Your task to perform on an android device: change the clock display to analog Image 0: 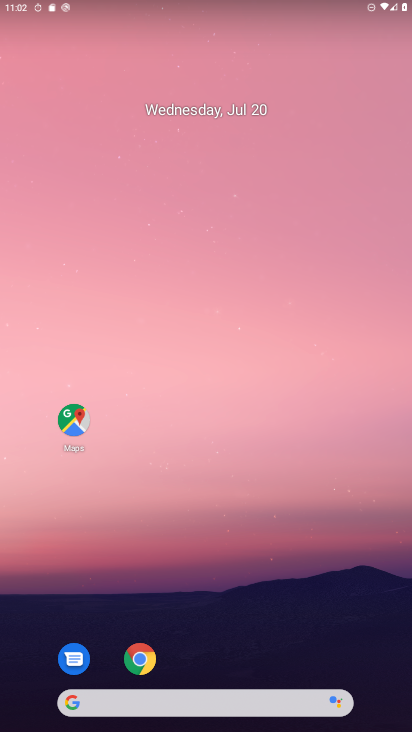
Step 0: drag from (231, 580) to (274, 113)
Your task to perform on an android device: change the clock display to analog Image 1: 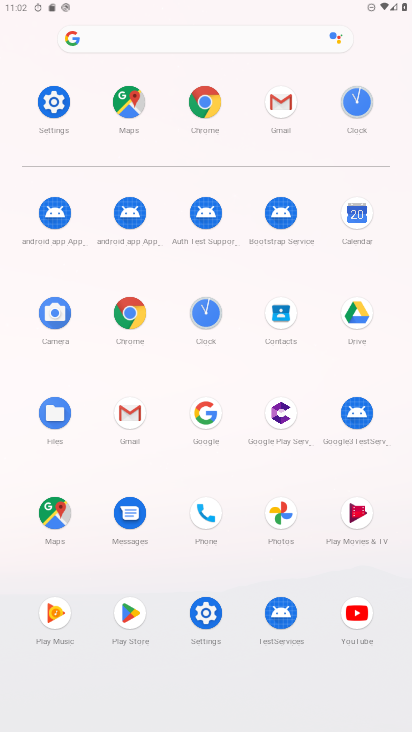
Step 1: click (210, 301)
Your task to perform on an android device: change the clock display to analog Image 2: 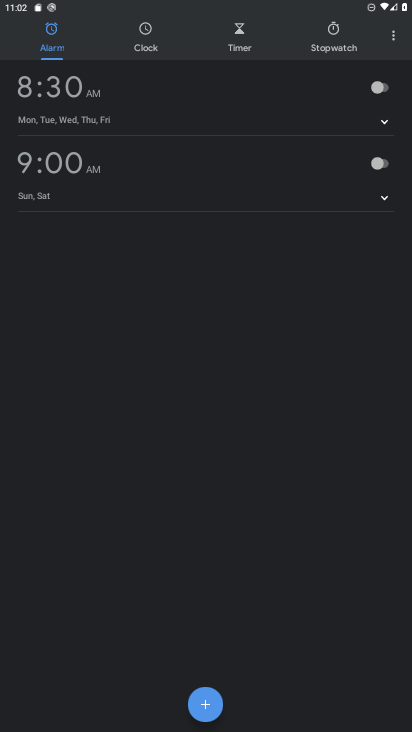
Step 2: click (389, 36)
Your task to perform on an android device: change the clock display to analog Image 3: 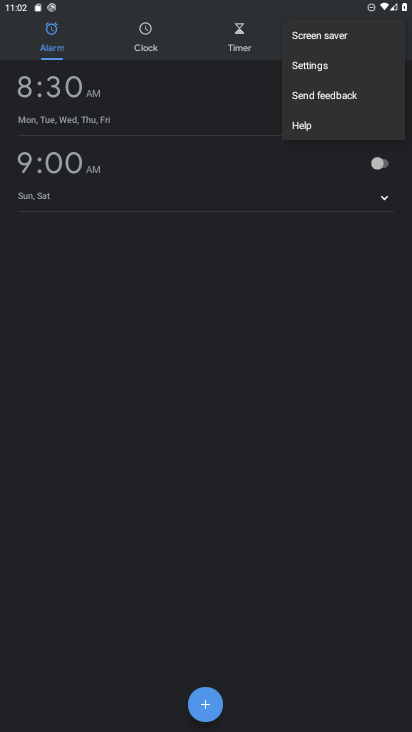
Step 3: click (320, 65)
Your task to perform on an android device: change the clock display to analog Image 4: 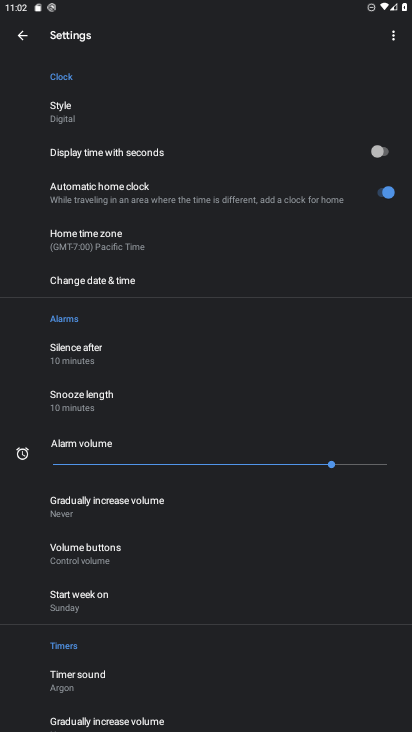
Step 4: click (69, 110)
Your task to perform on an android device: change the clock display to analog Image 5: 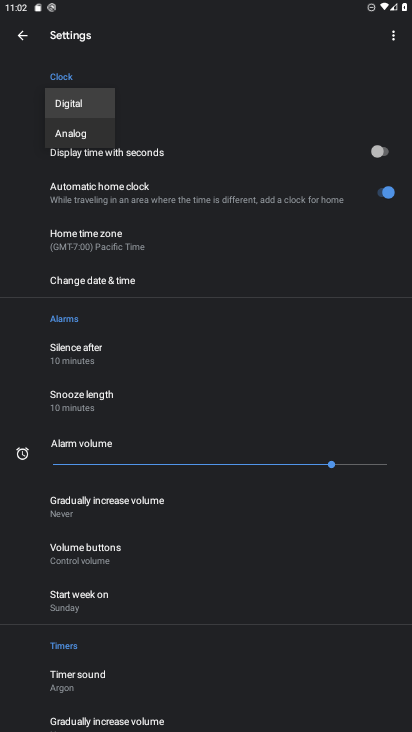
Step 5: click (84, 146)
Your task to perform on an android device: change the clock display to analog Image 6: 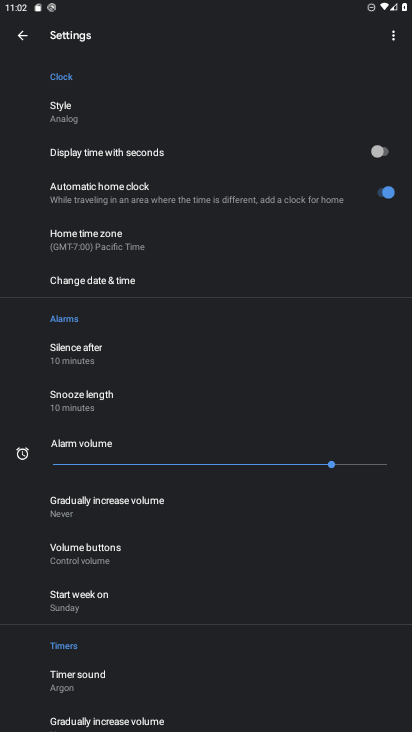
Step 6: task complete